Your task to perform on an android device: Open eBay Image 0: 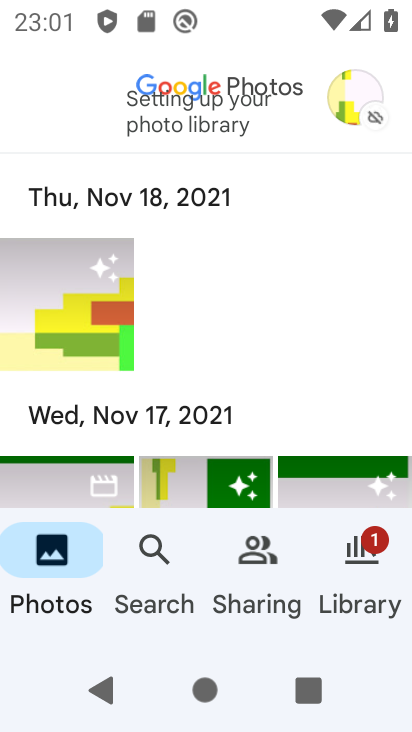
Step 0: press home button
Your task to perform on an android device: Open eBay Image 1: 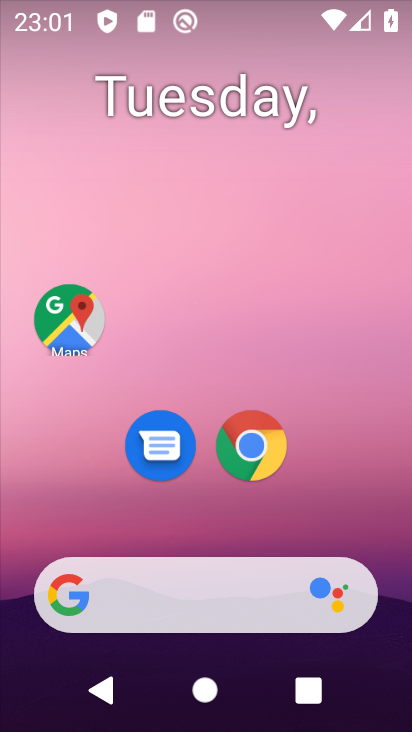
Step 1: click (258, 447)
Your task to perform on an android device: Open eBay Image 2: 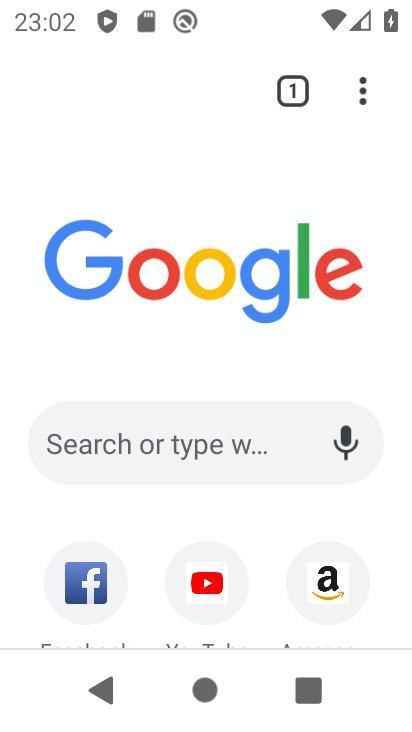
Step 2: click (177, 429)
Your task to perform on an android device: Open eBay Image 3: 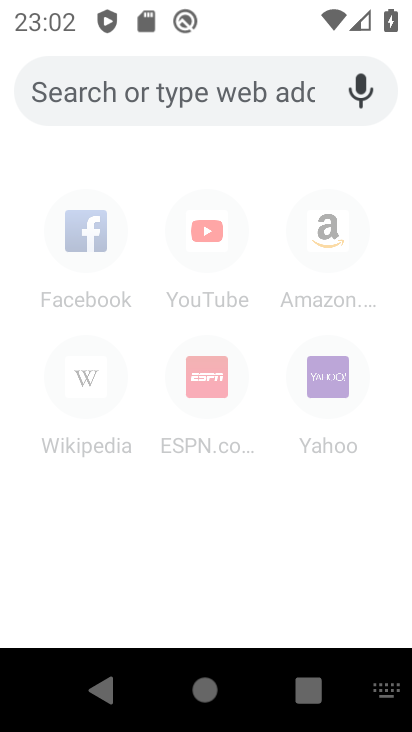
Step 3: type "ebay"
Your task to perform on an android device: Open eBay Image 4: 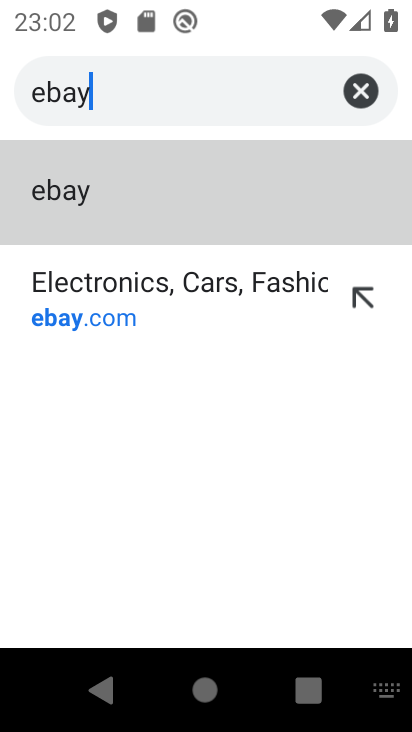
Step 4: click (42, 183)
Your task to perform on an android device: Open eBay Image 5: 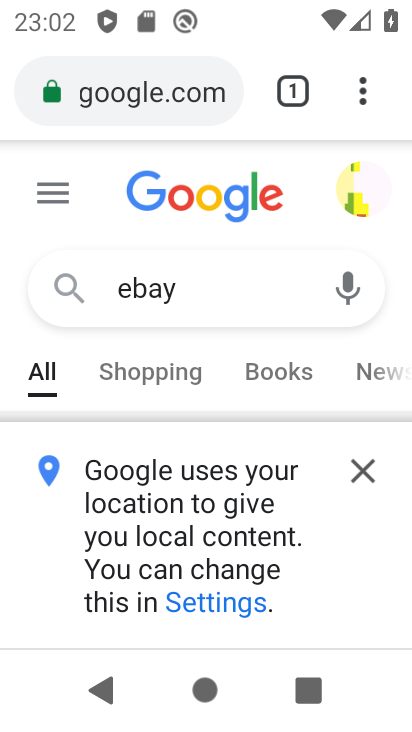
Step 5: click (355, 463)
Your task to perform on an android device: Open eBay Image 6: 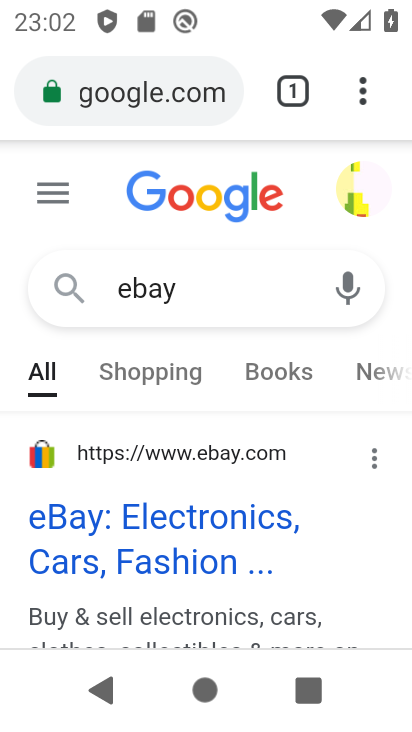
Step 6: click (151, 528)
Your task to perform on an android device: Open eBay Image 7: 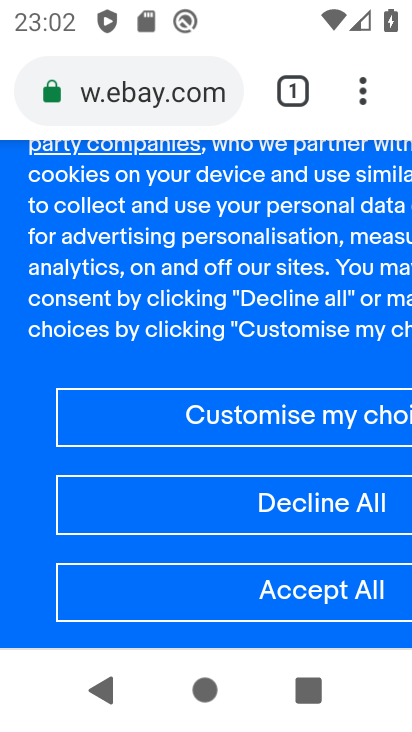
Step 7: task complete